Your task to perform on an android device: turn on sleep mode Image 0: 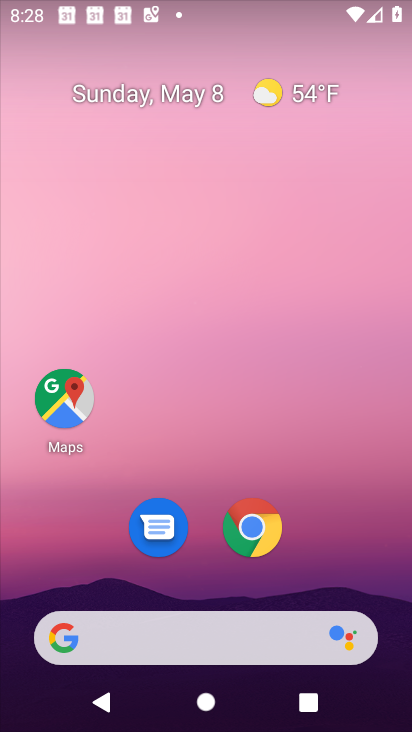
Step 0: drag from (317, 587) to (298, 1)
Your task to perform on an android device: turn on sleep mode Image 1: 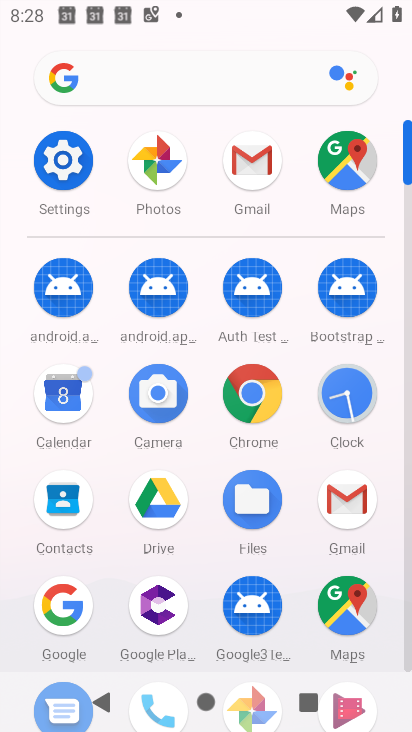
Step 1: click (54, 162)
Your task to perform on an android device: turn on sleep mode Image 2: 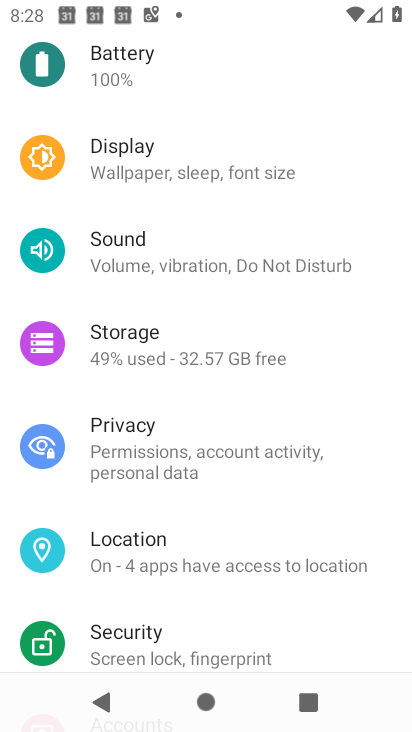
Step 2: drag from (302, 571) to (293, 478)
Your task to perform on an android device: turn on sleep mode Image 3: 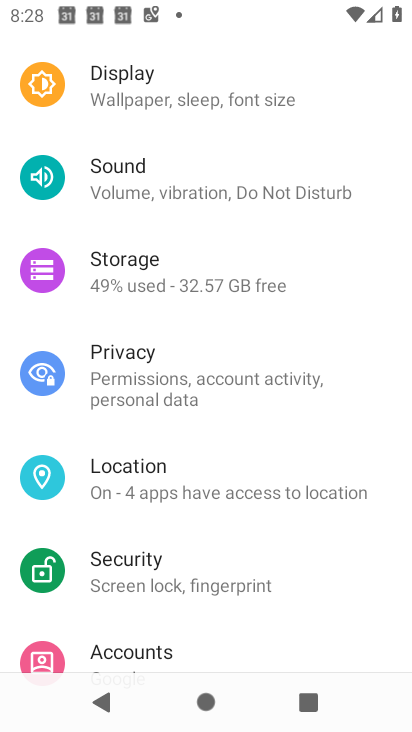
Step 3: drag from (234, 612) to (206, 518)
Your task to perform on an android device: turn on sleep mode Image 4: 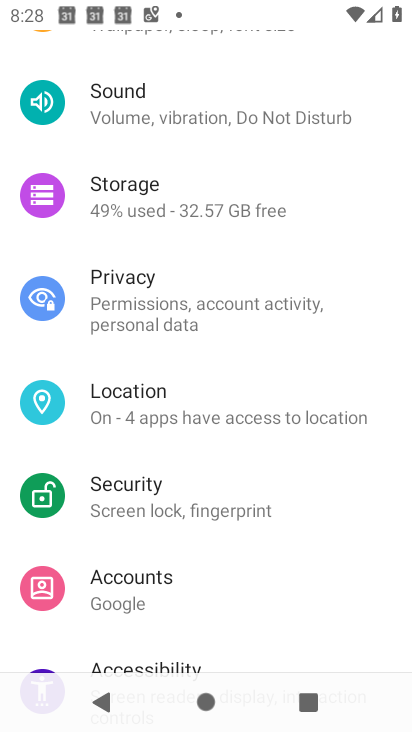
Step 4: drag from (168, 635) to (155, 506)
Your task to perform on an android device: turn on sleep mode Image 5: 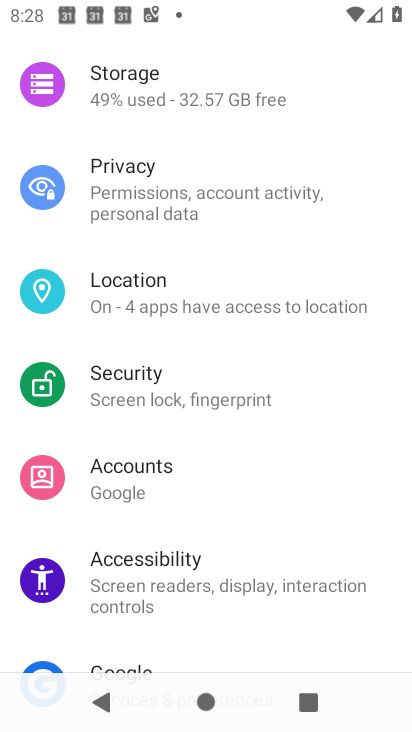
Step 5: drag from (157, 619) to (166, 497)
Your task to perform on an android device: turn on sleep mode Image 6: 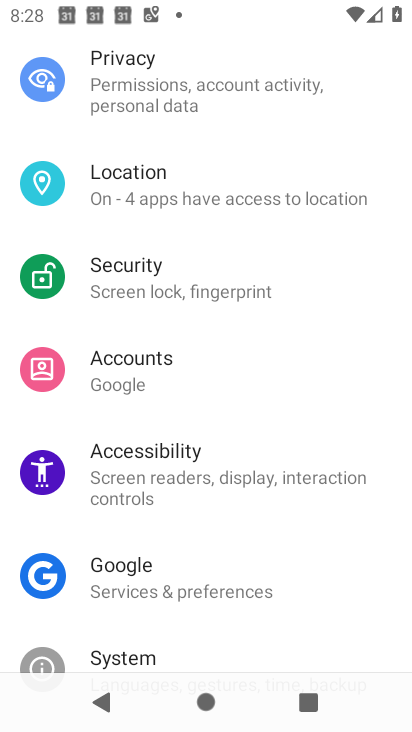
Step 6: drag from (160, 610) to (174, 477)
Your task to perform on an android device: turn on sleep mode Image 7: 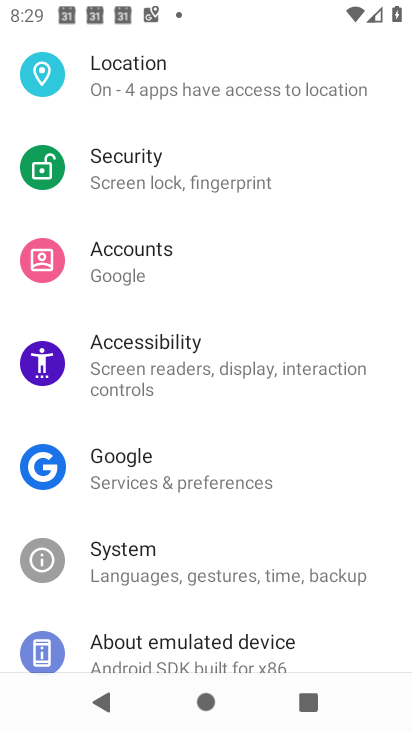
Step 7: drag from (198, 594) to (207, 455)
Your task to perform on an android device: turn on sleep mode Image 8: 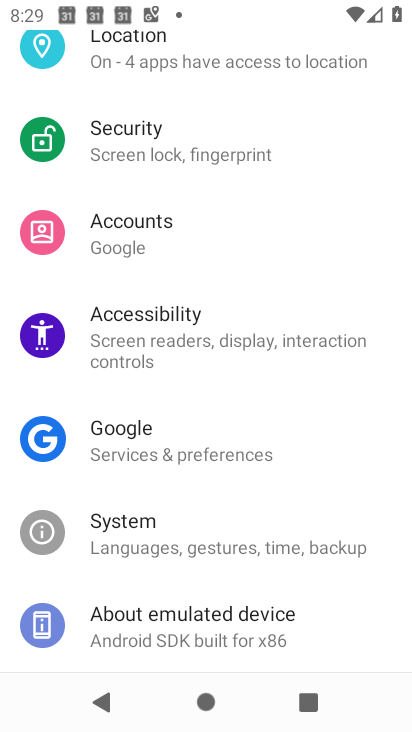
Step 8: drag from (223, 436) to (273, 538)
Your task to perform on an android device: turn on sleep mode Image 9: 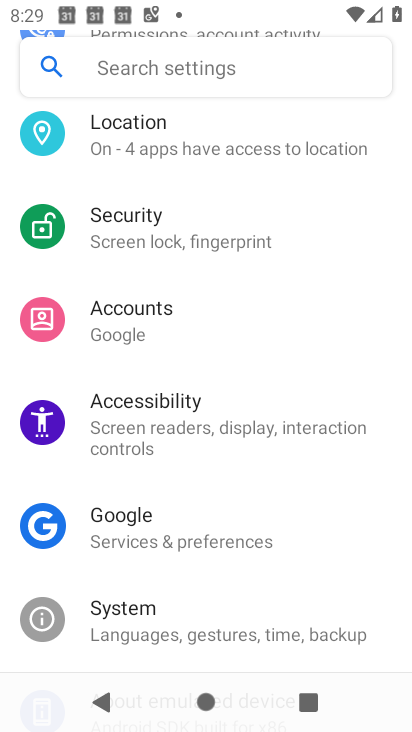
Step 9: drag from (276, 434) to (288, 512)
Your task to perform on an android device: turn on sleep mode Image 10: 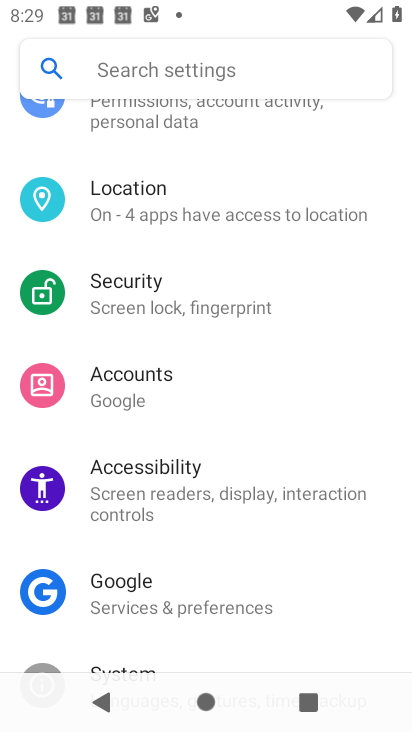
Step 10: drag from (278, 419) to (303, 488)
Your task to perform on an android device: turn on sleep mode Image 11: 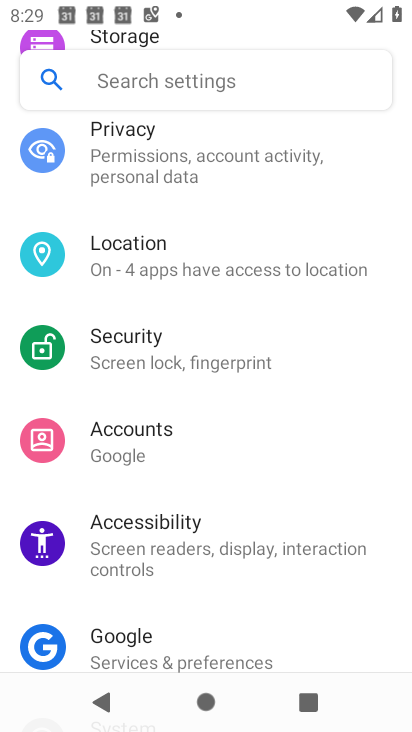
Step 11: drag from (315, 385) to (325, 480)
Your task to perform on an android device: turn on sleep mode Image 12: 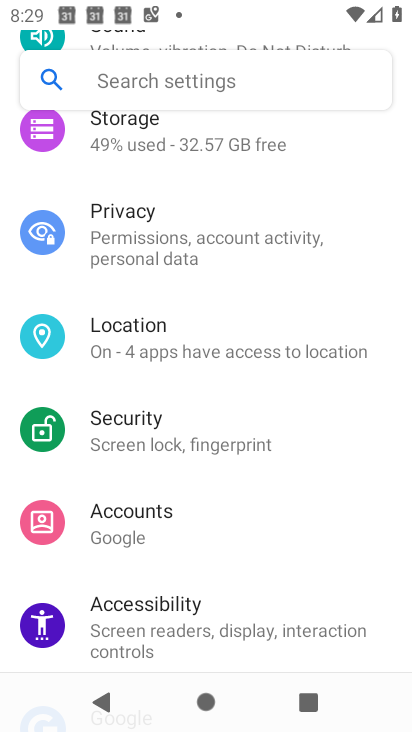
Step 12: drag from (307, 381) to (322, 455)
Your task to perform on an android device: turn on sleep mode Image 13: 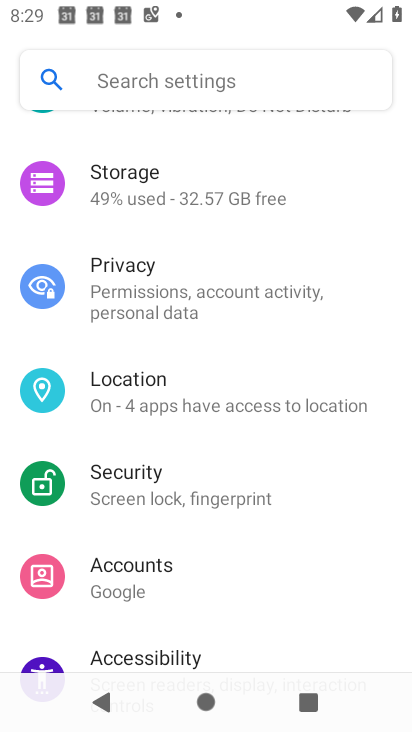
Step 13: drag from (297, 362) to (310, 432)
Your task to perform on an android device: turn on sleep mode Image 14: 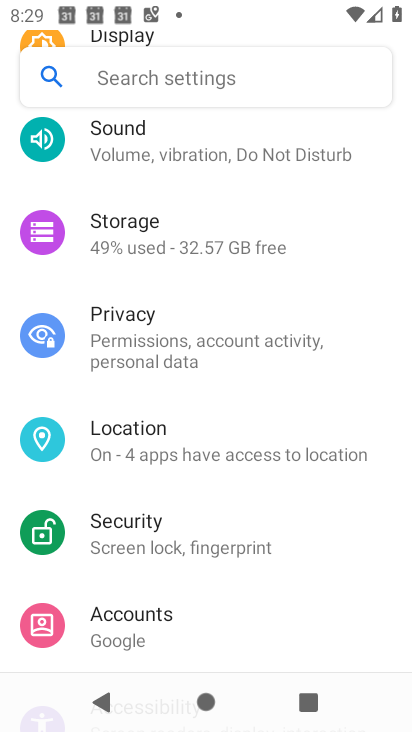
Step 14: drag from (288, 360) to (289, 423)
Your task to perform on an android device: turn on sleep mode Image 15: 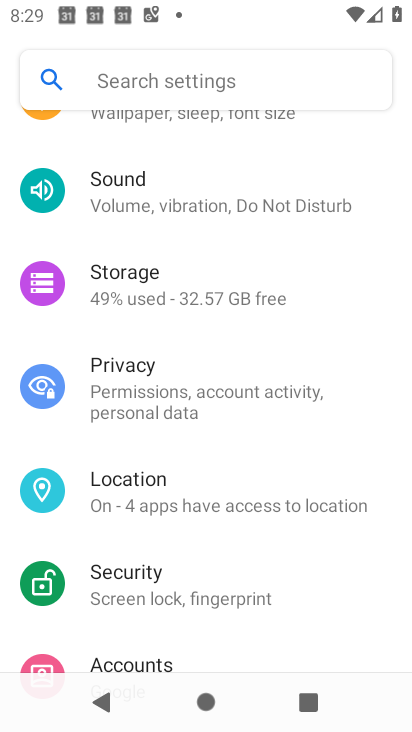
Step 15: drag from (262, 342) to (277, 420)
Your task to perform on an android device: turn on sleep mode Image 16: 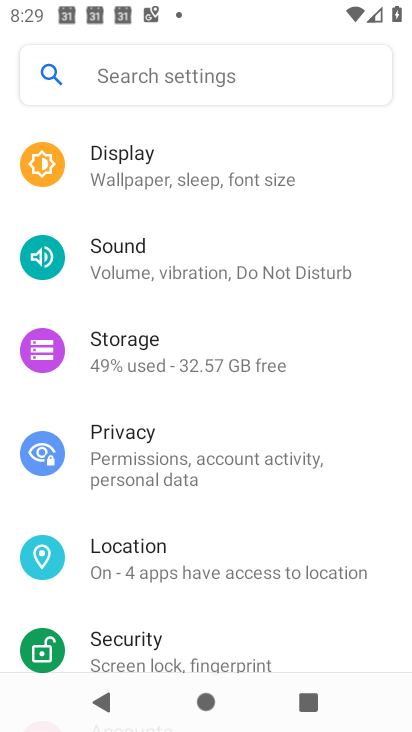
Step 16: drag from (259, 328) to (257, 407)
Your task to perform on an android device: turn on sleep mode Image 17: 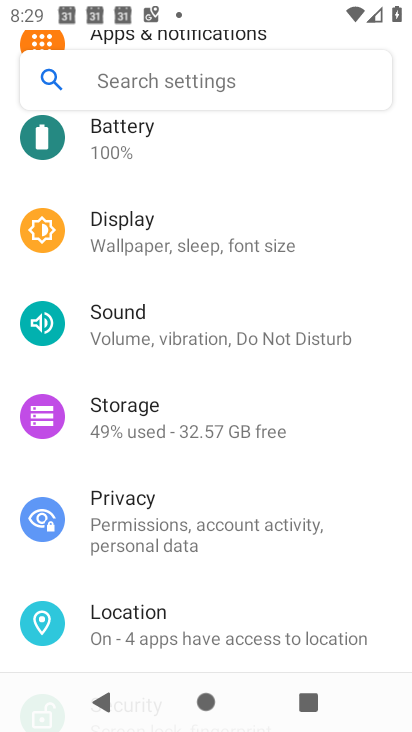
Step 17: drag from (246, 344) to (256, 437)
Your task to perform on an android device: turn on sleep mode Image 18: 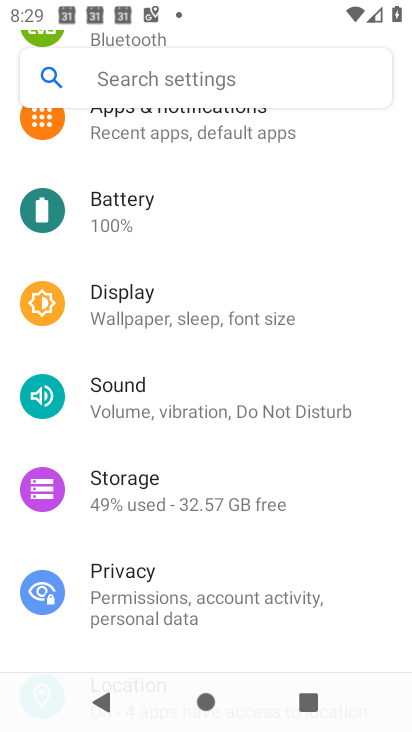
Step 18: drag from (241, 357) to (250, 487)
Your task to perform on an android device: turn on sleep mode Image 19: 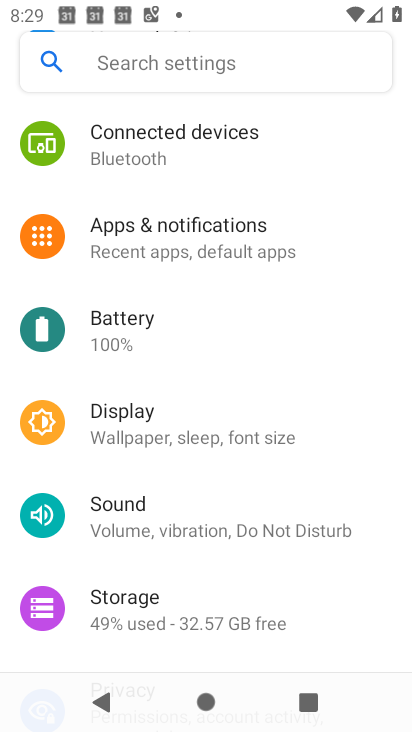
Step 19: drag from (234, 358) to (231, 510)
Your task to perform on an android device: turn on sleep mode Image 20: 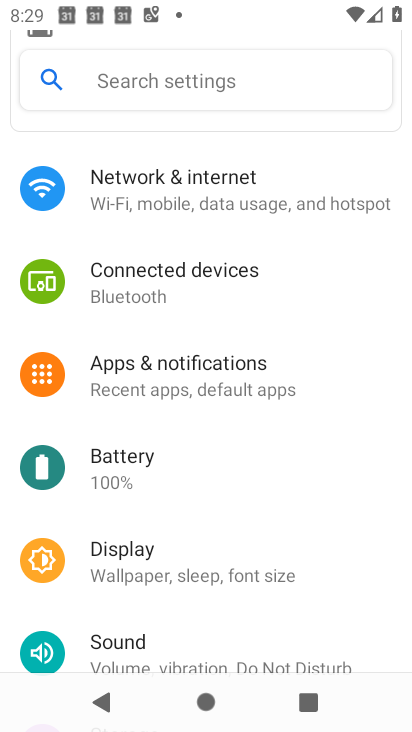
Step 20: click (175, 565)
Your task to perform on an android device: turn on sleep mode Image 21: 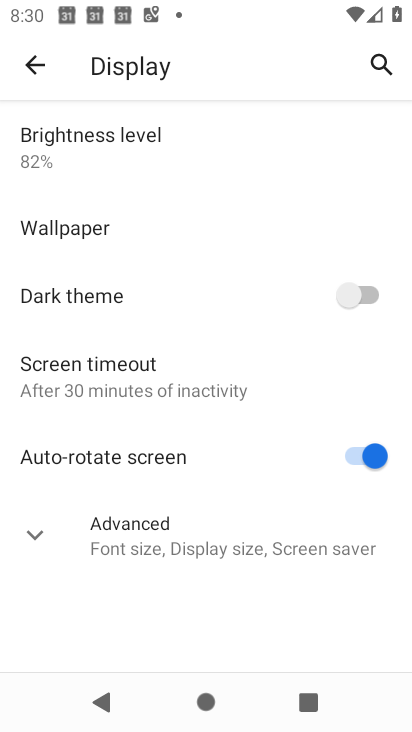
Step 21: click (166, 552)
Your task to perform on an android device: turn on sleep mode Image 22: 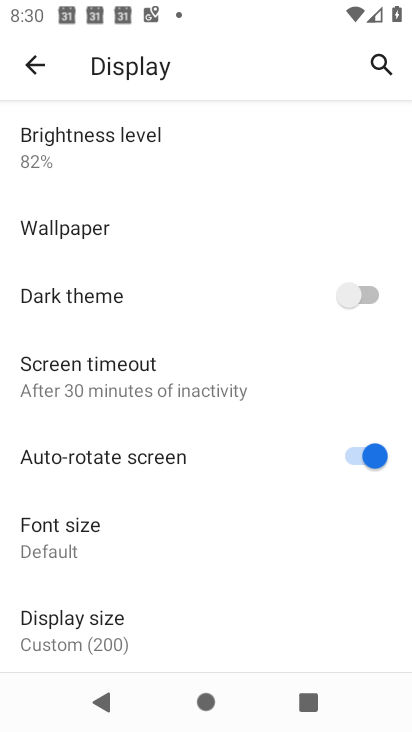
Step 22: task complete